Your task to perform on an android device: Open notification settings Image 0: 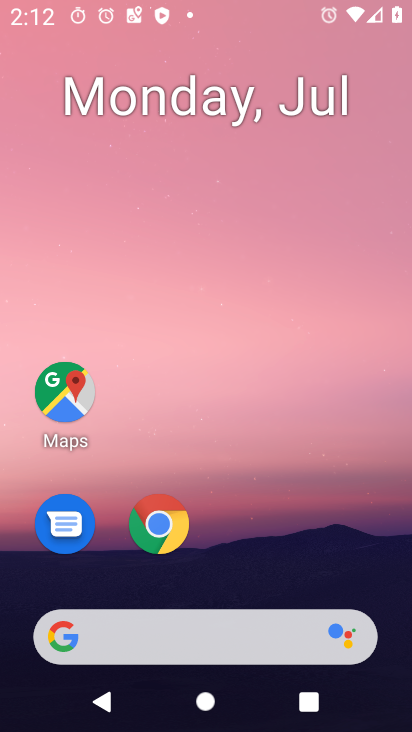
Step 0: press home button
Your task to perform on an android device: Open notification settings Image 1: 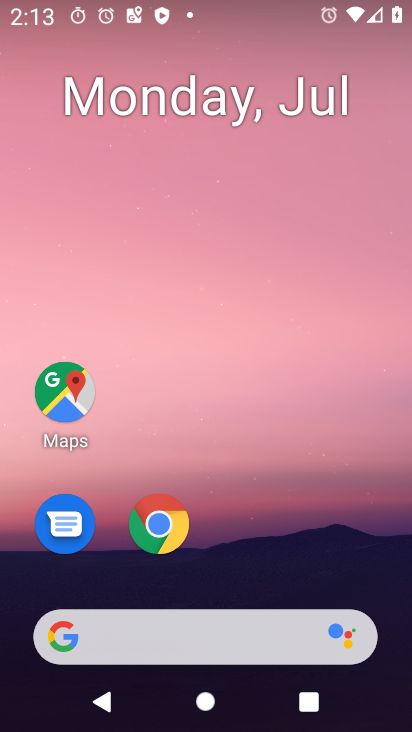
Step 1: drag from (239, 467) to (271, 12)
Your task to perform on an android device: Open notification settings Image 2: 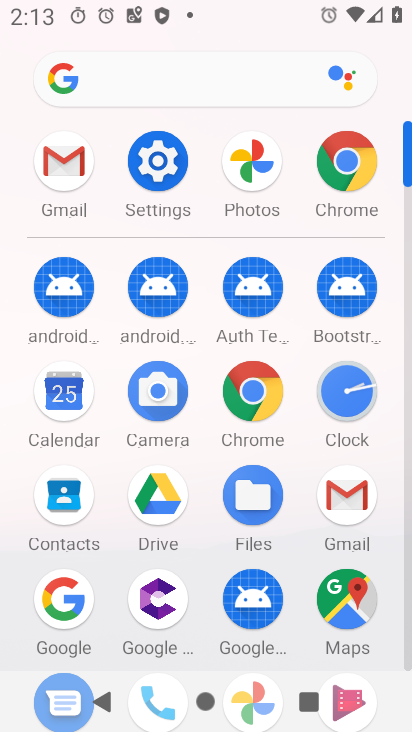
Step 2: click (162, 161)
Your task to perform on an android device: Open notification settings Image 3: 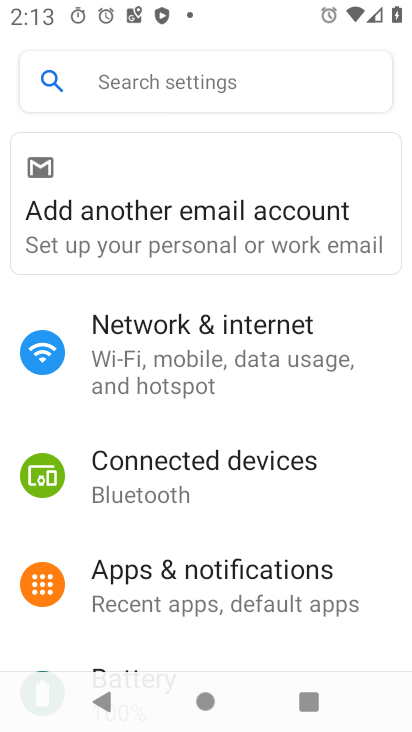
Step 3: click (207, 585)
Your task to perform on an android device: Open notification settings Image 4: 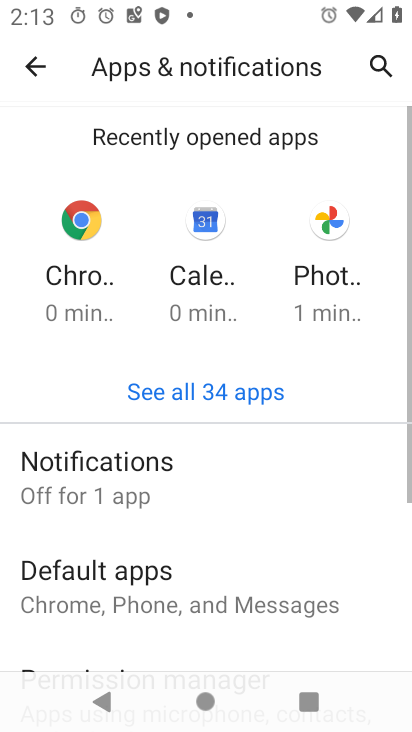
Step 4: click (86, 473)
Your task to perform on an android device: Open notification settings Image 5: 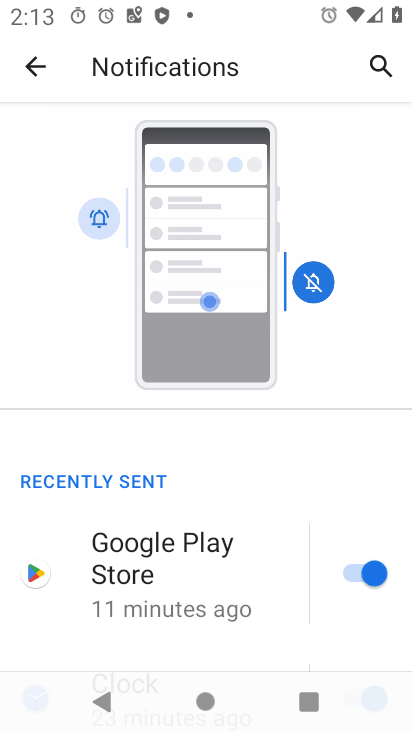
Step 5: task complete